Your task to perform on an android device: Go to sound settings Image 0: 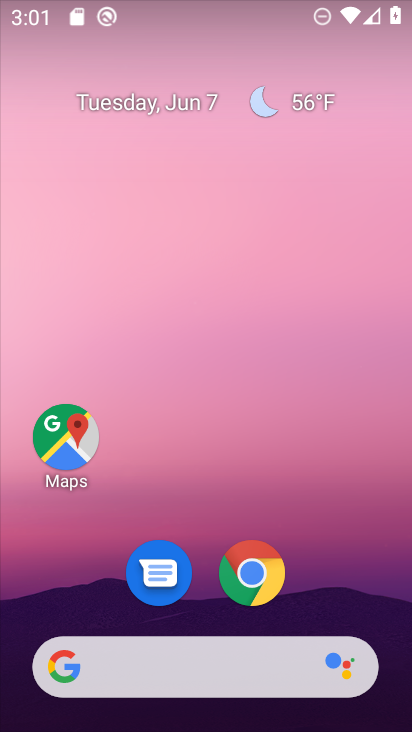
Step 0: drag from (334, 597) to (337, 32)
Your task to perform on an android device: Go to sound settings Image 1: 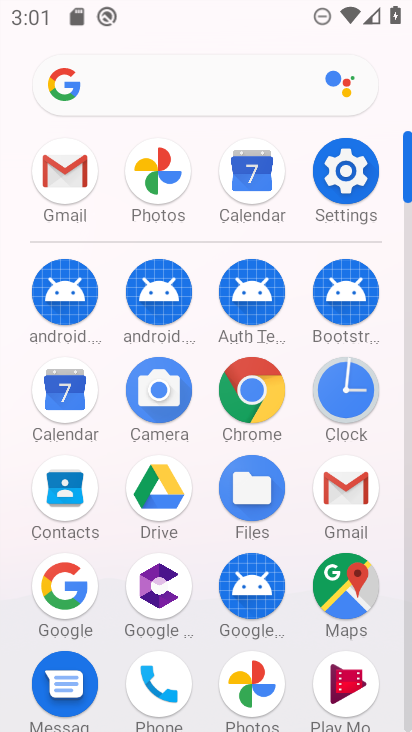
Step 1: click (340, 183)
Your task to perform on an android device: Go to sound settings Image 2: 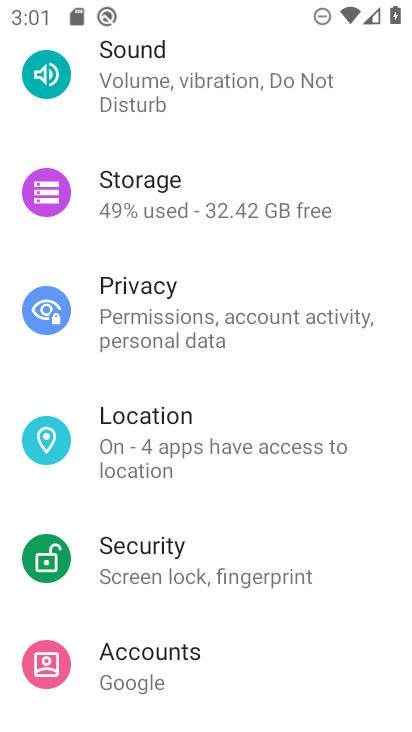
Step 2: click (166, 99)
Your task to perform on an android device: Go to sound settings Image 3: 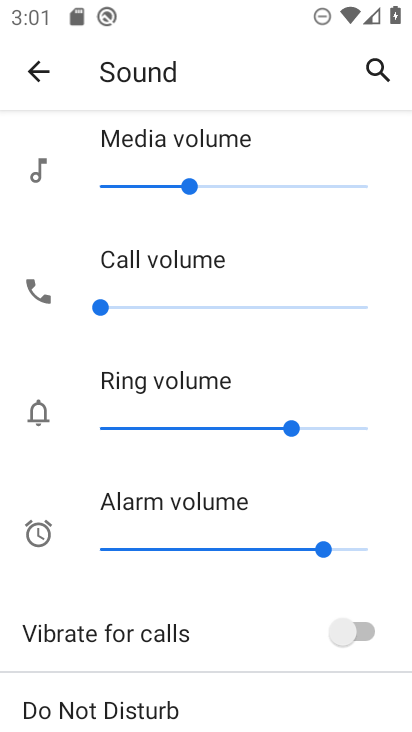
Step 3: task complete